Your task to perform on an android device: turn on bluetooth scan Image 0: 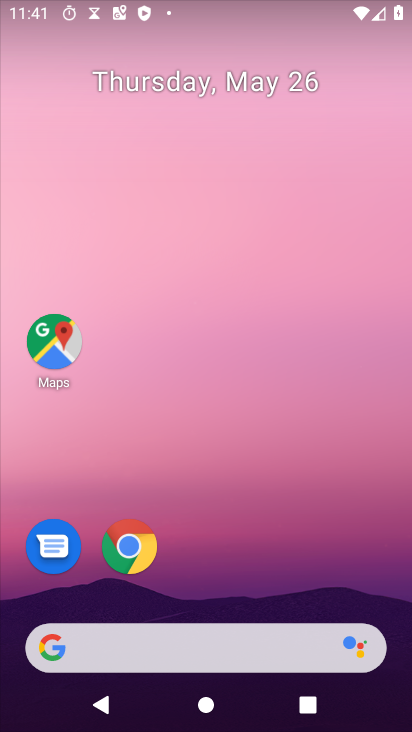
Step 0: drag from (392, 570) to (376, 101)
Your task to perform on an android device: turn on bluetooth scan Image 1: 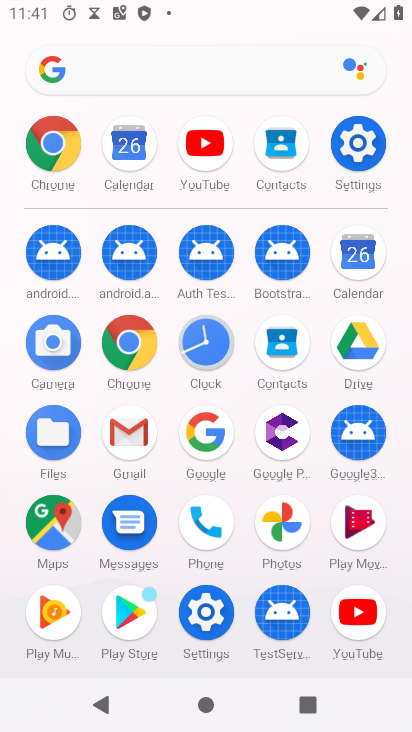
Step 1: click (226, 615)
Your task to perform on an android device: turn on bluetooth scan Image 2: 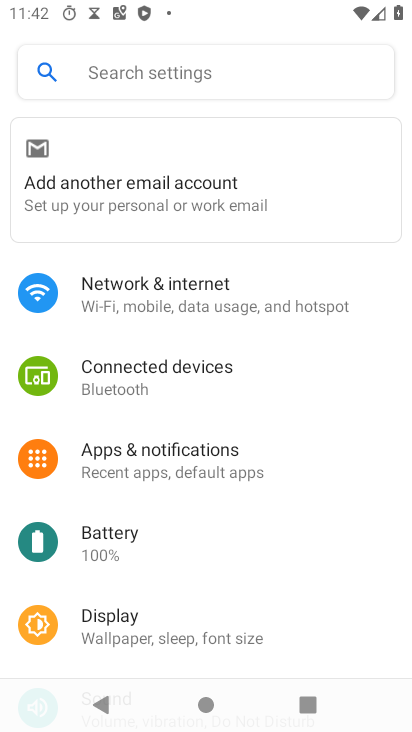
Step 2: drag from (248, 623) to (276, 302)
Your task to perform on an android device: turn on bluetooth scan Image 3: 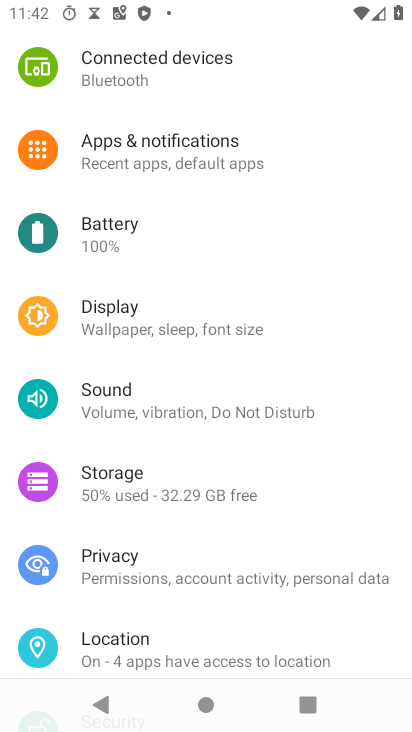
Step 3: drag from (289, 582) to (328, 266)
Your task to perform on an android device: turn on bluetooth scan Image 4: 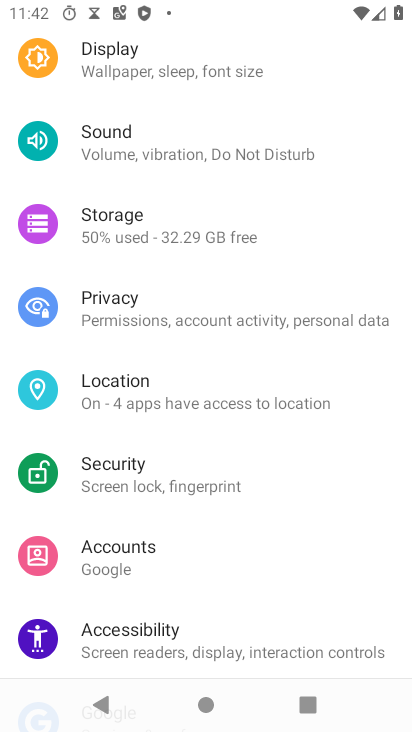
Step 4: drag from (293, 527) to (317, 236)
Your task to perform on an android device: turn on bluetooth scan Image 5: 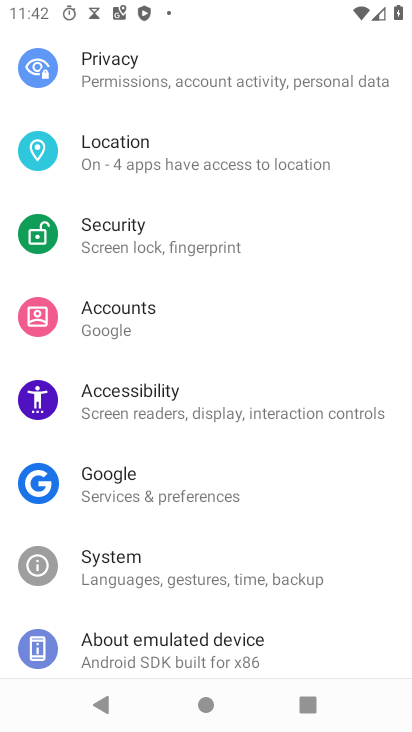
Step 5: click (140, 163)
Your task to perform on an android device: turn on bluetooth scan Image 6: 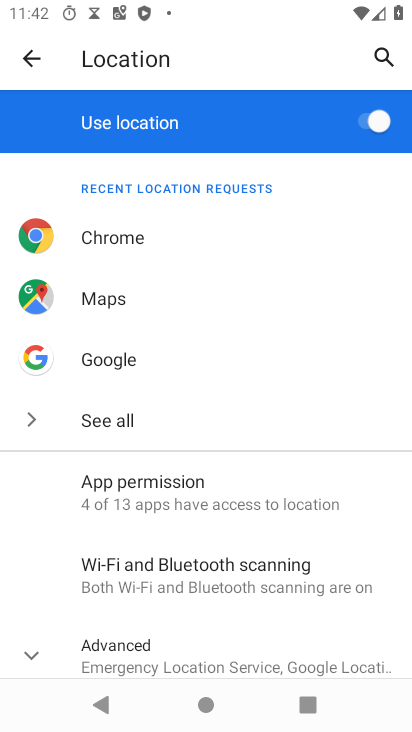
Step 6: drag from (297, 622) to (335, 383)
Your task to perform on an android device: turn on bluetooth scan Image 7: 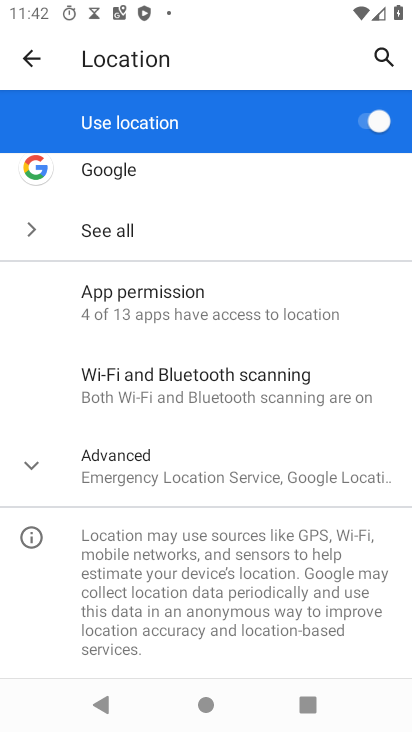
Step 7: click (307, 403)
Your task to perform on an android device: turn on bluetooth scan Image 8: 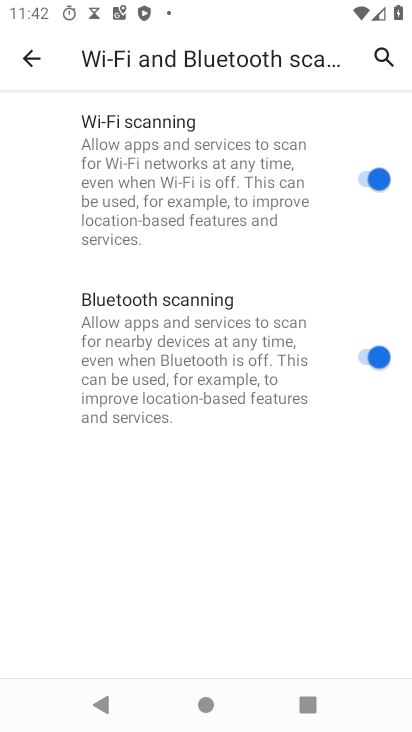
Step 8: task complete